Your task to perform on an android device: turn off improve location accuracy Image 0: 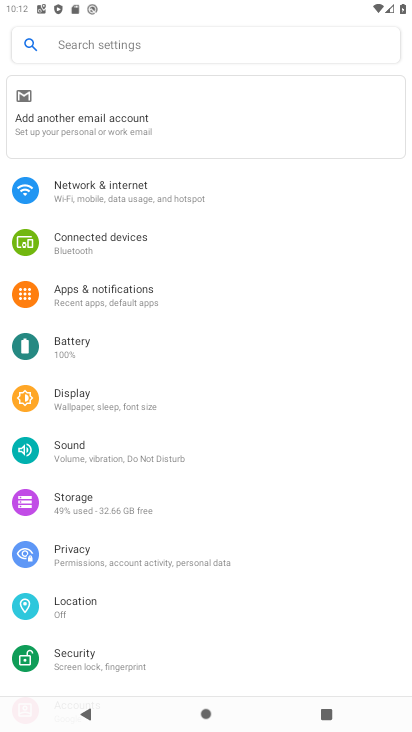
Step 0: press home button
Your task to perform on an android device: turn off improve location accuracy Image 1: 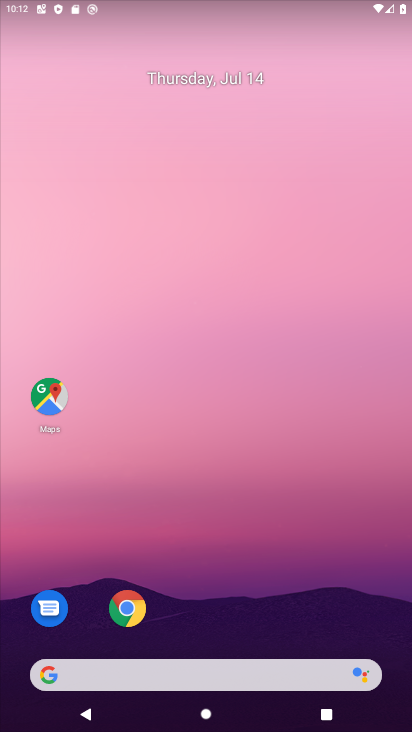
Step 1: drag from (198, 523) to (205, 151)
Your task to perform on an android device: turn off improve location accuracy Image 2: 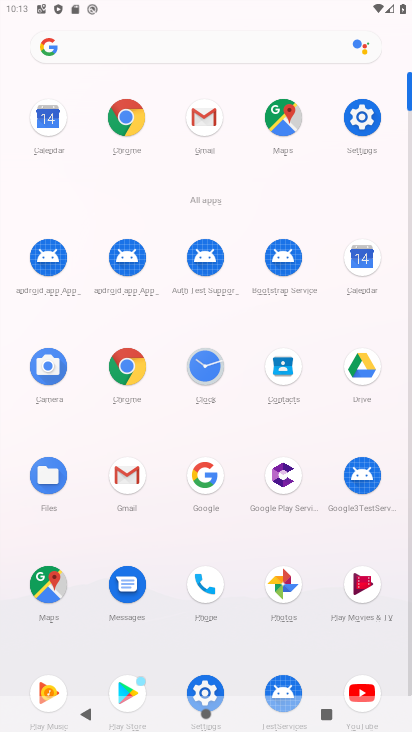
Step 2: click (360, 120)
Your task to perform on an android device: turn off improve location accuracy Image 3: 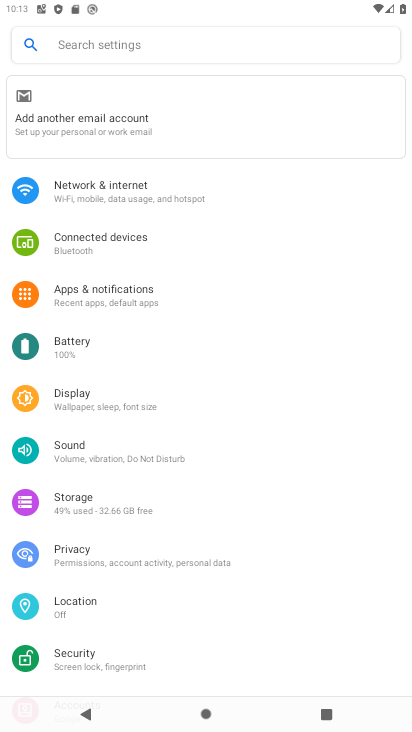
Step 3: click (55, 600)
Your task to perform on an android device: turn off improve location accuracy Image 4: 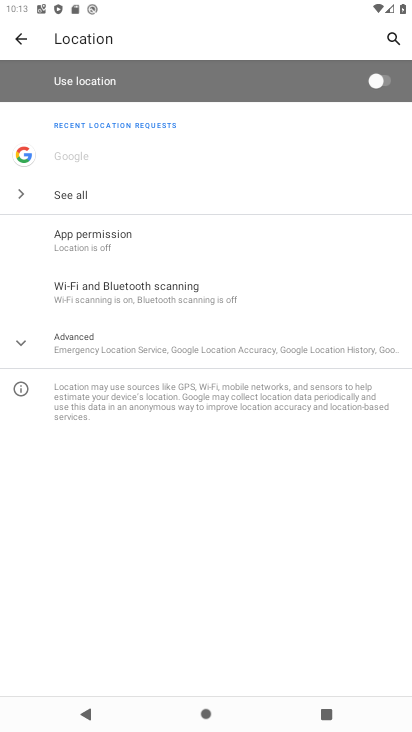
Step 4: click (80, 348)
Your task to perform on an android device: turn off improve location accuracy Image 5: 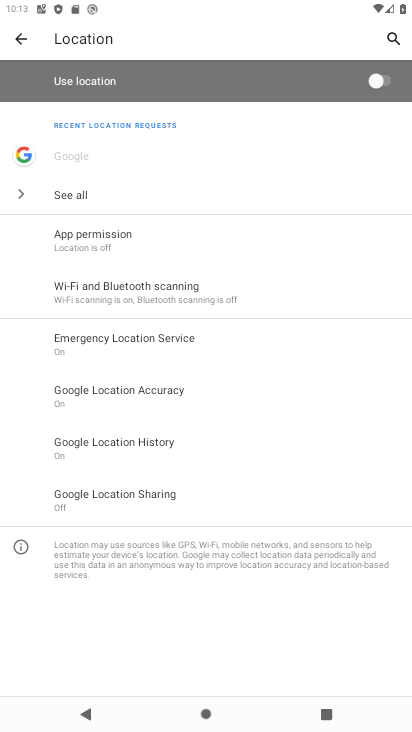
Step 5: click (102, 440)
Your task to perform on an android device: turn off improve location accuracy Image 6: 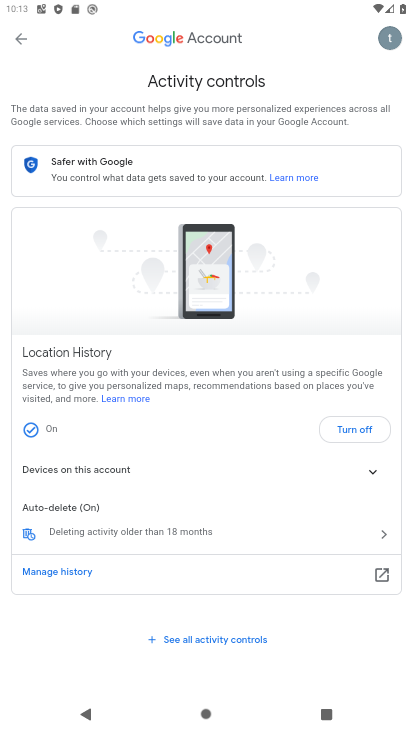
Step 6: task complete